Your task to perform on an android device: turn on bluetooth scan Image 0: 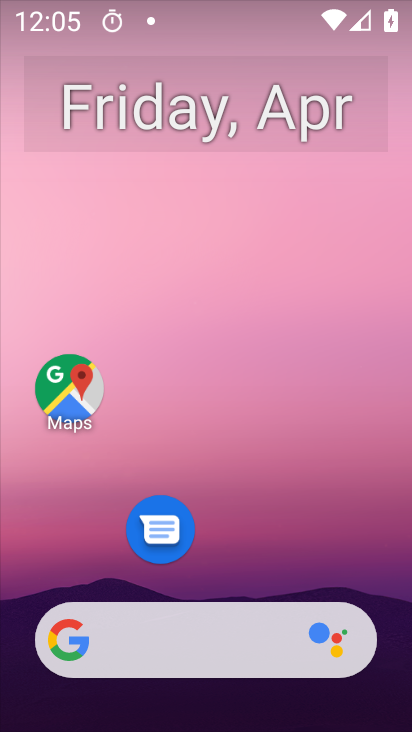
Step 0: drag from (245, 71) to (331, 23)
Your task to perform on an android device: turn on bluetooth scan Image 1: 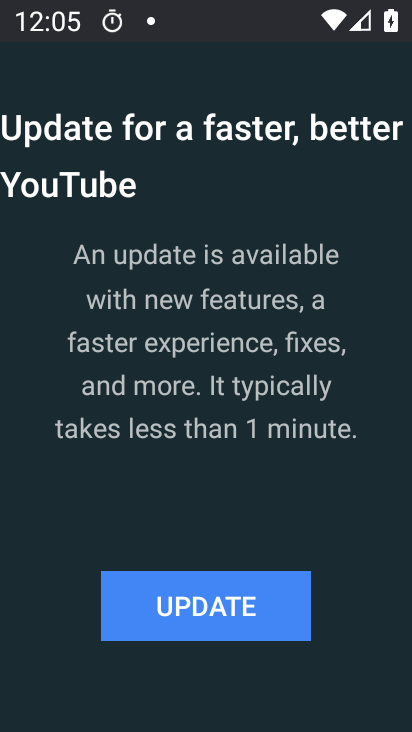
Step 1: press home button
Your task to perform on an android device: turn on bluetooth scan Image 2: 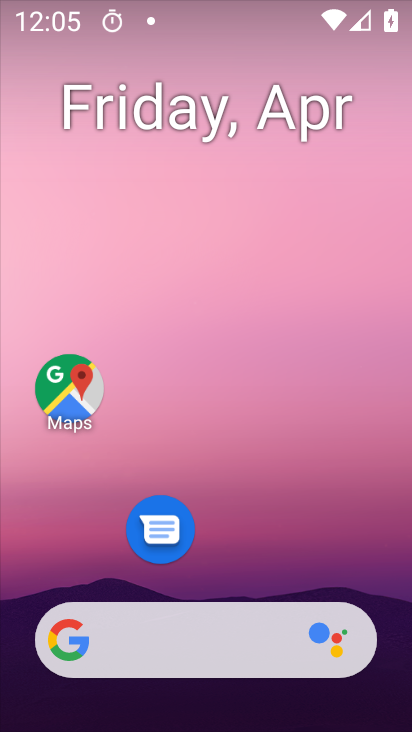
Step 2: drag from (213, 562) to (256, 70)
Your task to perform on an android device: turn on bluetooth scan Image 3: 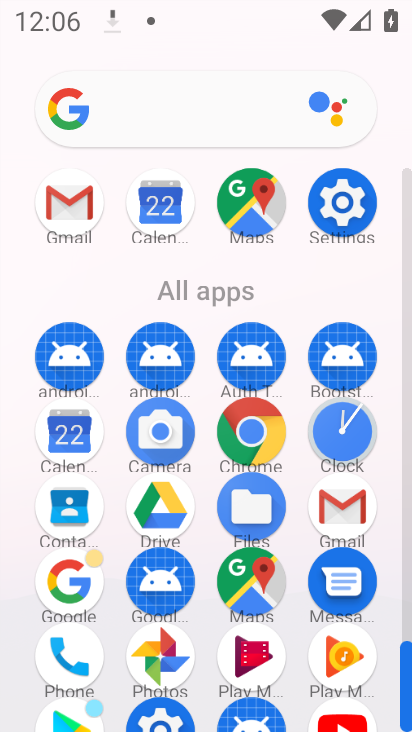
Step 3: click (341, 229)
Your task to perform on an android device: turn on bluetooth scan Image 4: 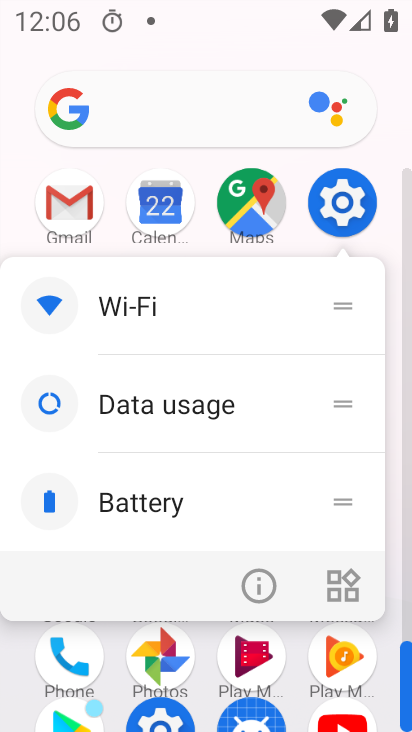
Step 4: click (337, 222)
Your task to perform on an android device: turn on bluetooth scan Image 5: 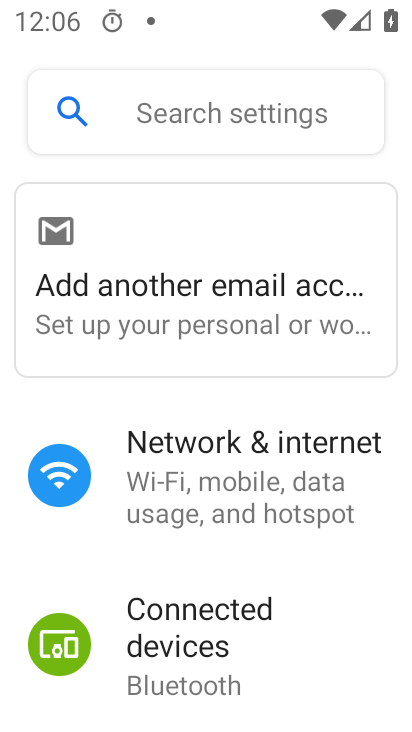
Step 5: drag from (201, 646) to (284, 222)
Your task to perform on an android device: turn on bluetooth scan Image 6: 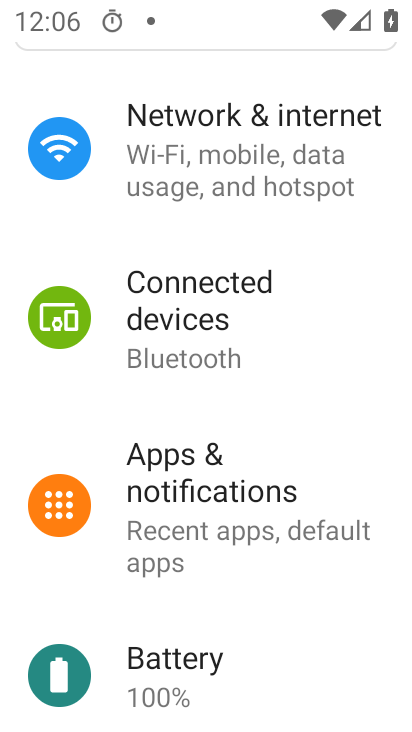
Step 6: drag from (208, 569) to (284, 189)
Your task to perform on an android device: turn on bluetooth scan Image 7: 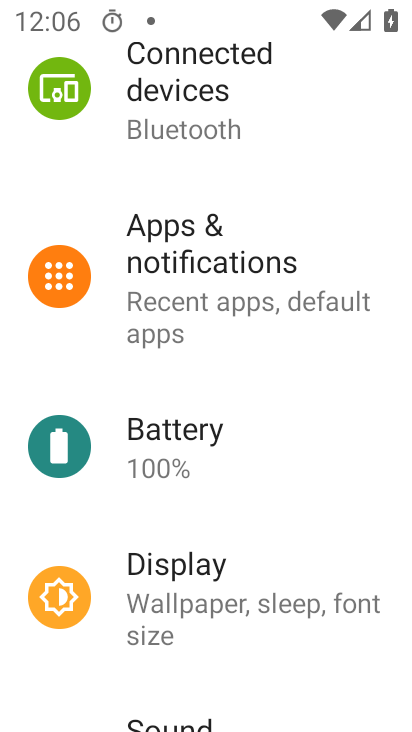
Step 7: drag from (199, 620) to (285, 251)
Your task to perform on an android device: turn on bluetooth scan Image 8: 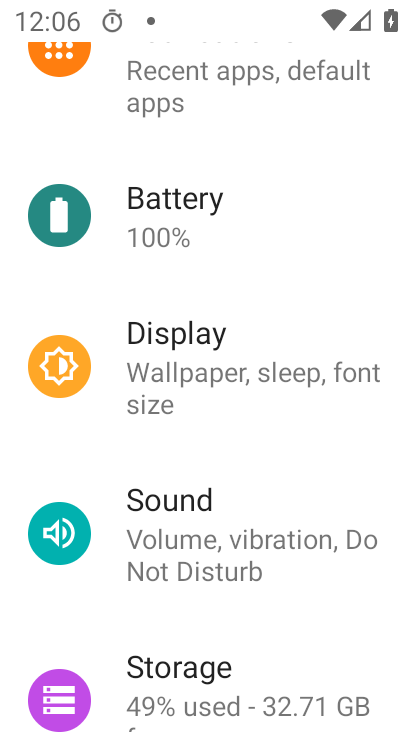
Step 8: drag from (181, 591) to (269, 238)
Your task to perform on an android device: turn on bluetooth scan Image 9: 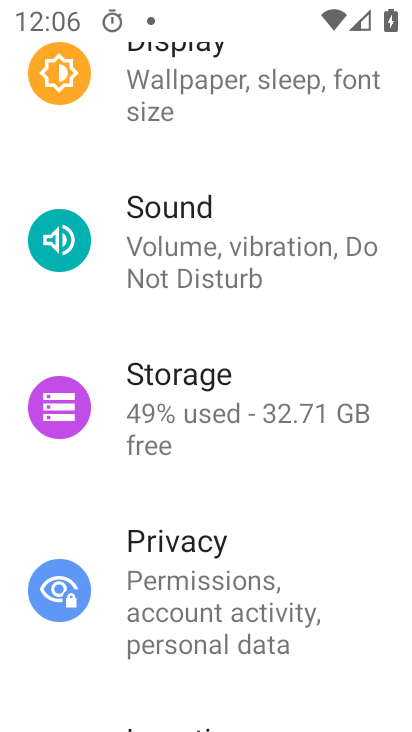
Step 9: drag from (182, 563) to (225, 309)
Your task to perform on an android device: turn on bluetooth scan Image 10: 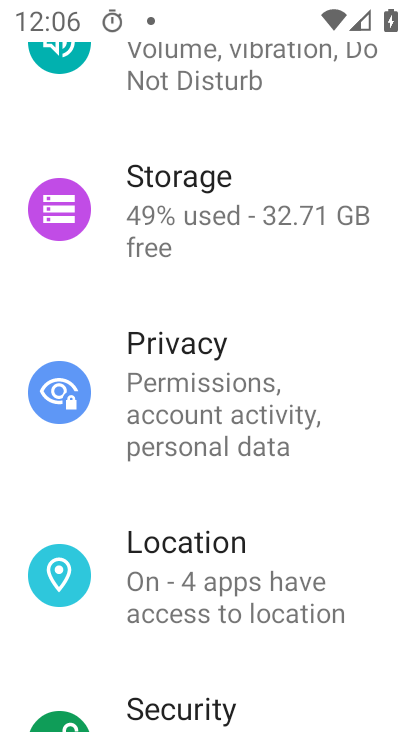
Step 10: click (169, 554)
Your task to perform on an android device: turn on bluetooth scan Image 11: 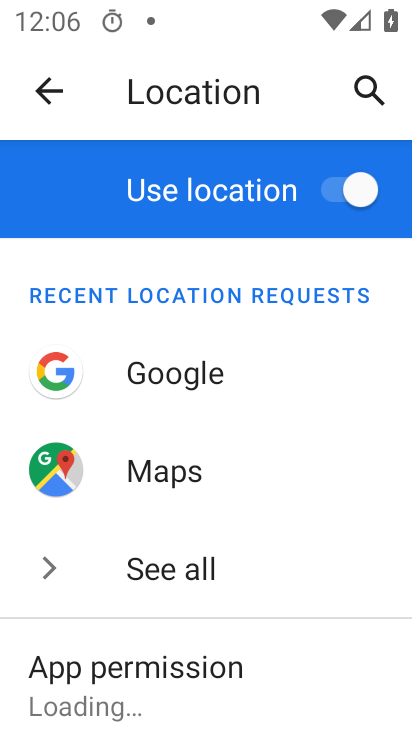
Step 11: drag from (163, 564) to (241, 320)
Your task to perform on an android device: turn on bluetooth scan Image 12: 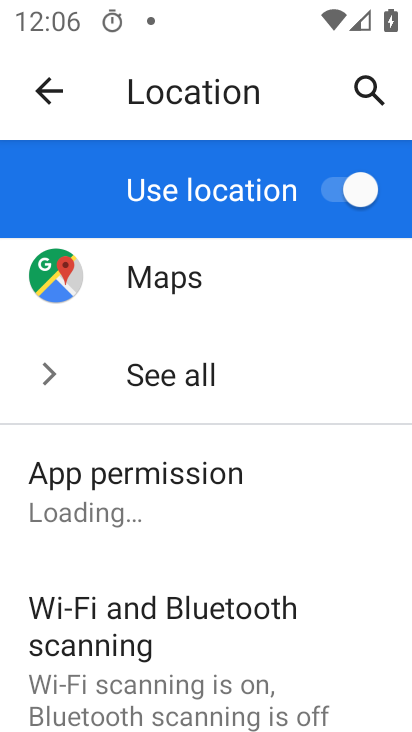
Step 12: click (165, 641)
Your task to perform on an android device: turn on bluetooth scan Image 13: 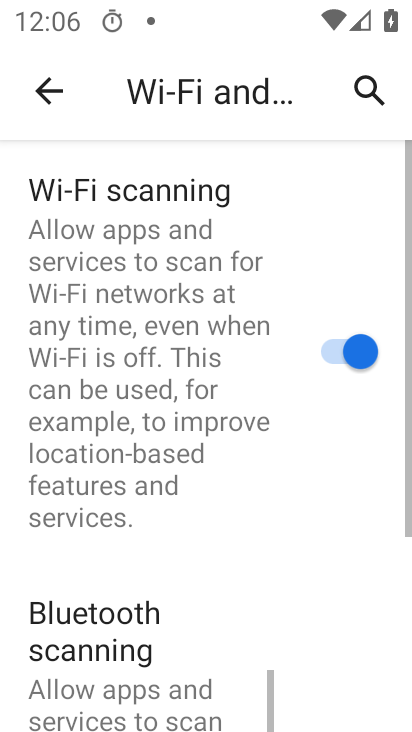
Step 13: drag from (163, 518) to (211, 327)
Your task to perform on an android device: turn on bluetooth scan Image 14: 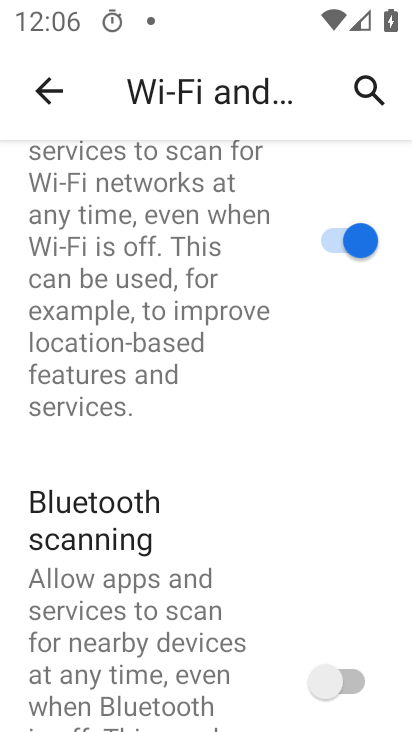
Step 14: click (361, 686)
Your task to perform on an android device: turn on bluetooth scan Image 15: 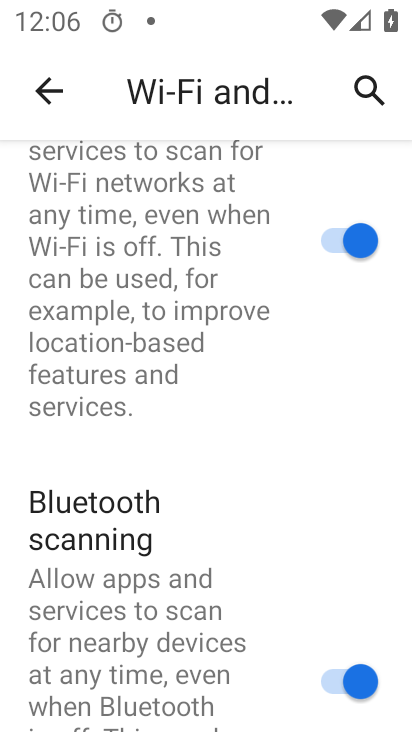
Step 15: task complete